Your task to perform on an android device: Set the phone to "Do not disturb". Image 0: 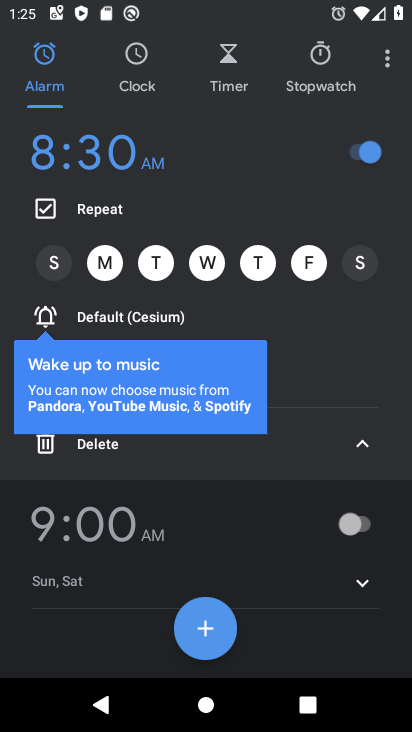
Step 0: press home button
Your task to perform on an android device: Set the phone to "Do not disturb". Image 1: 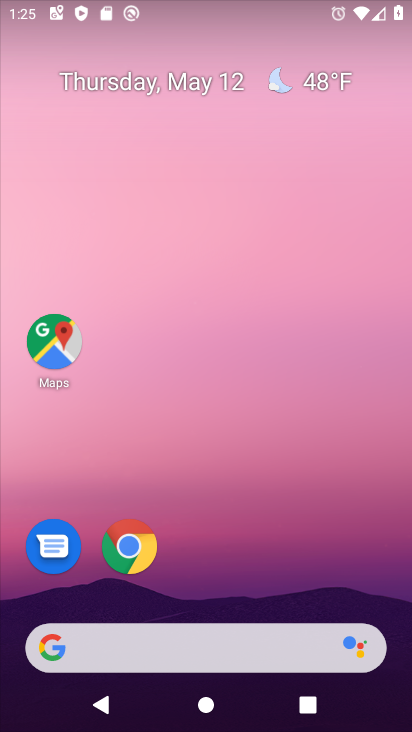
Step 1: drag from (180, 638) to (313, 175)
Your task to perform on an android device: Set the phone to "Do not disturb". Image 2: 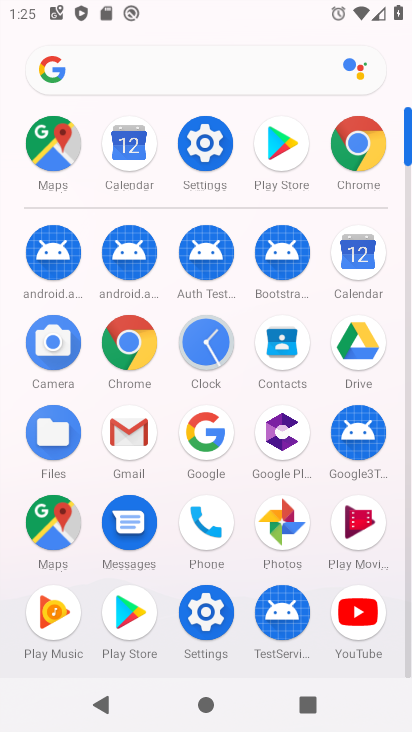
Step 2: click (213, 142)
Your task to perform on an android device: Set the phone to "Do not disturb". Image 3: 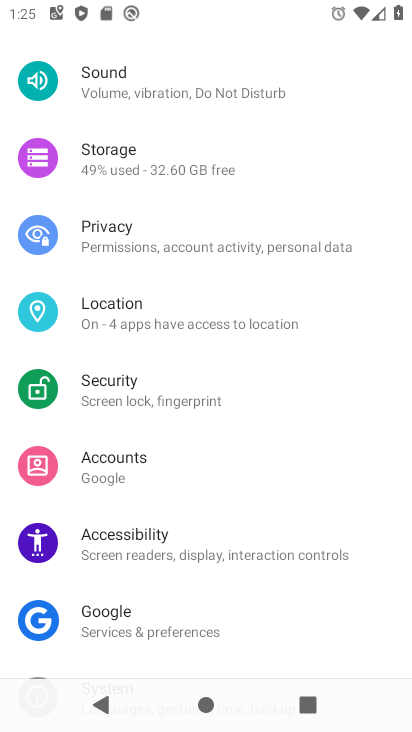
Step 3: drag from (241, 484) to (203, 509)
Your task to perform on an android device: Set the phone to "Do not disturb". Image 4: 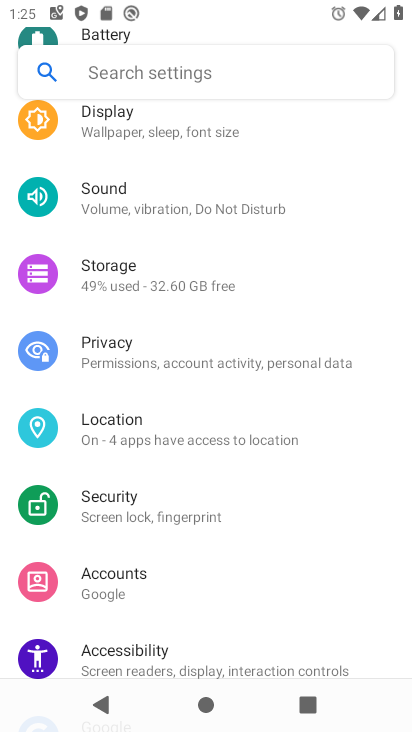
Step 4: click (191, 213)
Your task to perform on an android device: Set the phone to "Do not disturb". Image 5: 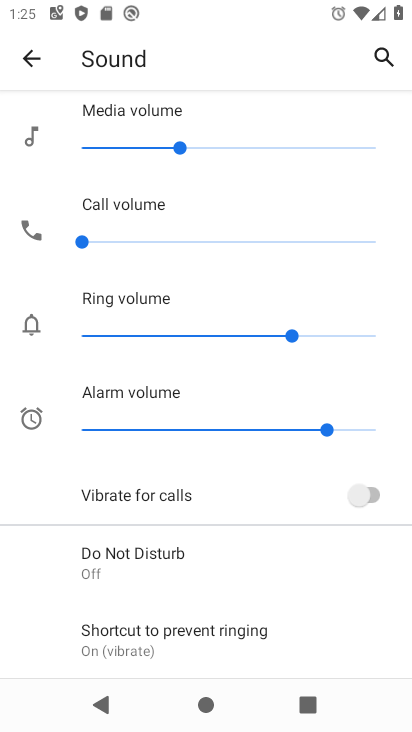
Step 5: click (145, 548)
Your task to perform on an android device: Set the phone to "Do not disturb". Image 6: 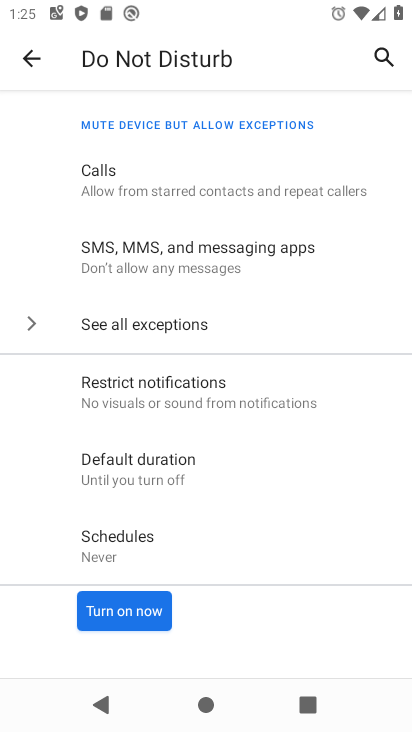
Step 6: click (129, 609)
Your task to perform on an android device: Set the phone to "Do not disturb". Image 7: 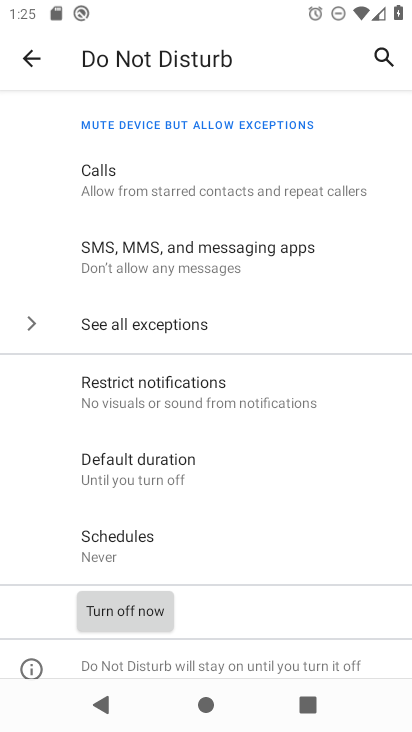
Step 7: task complete